Your task to perform on an android device: Go to internet settings Image 0: 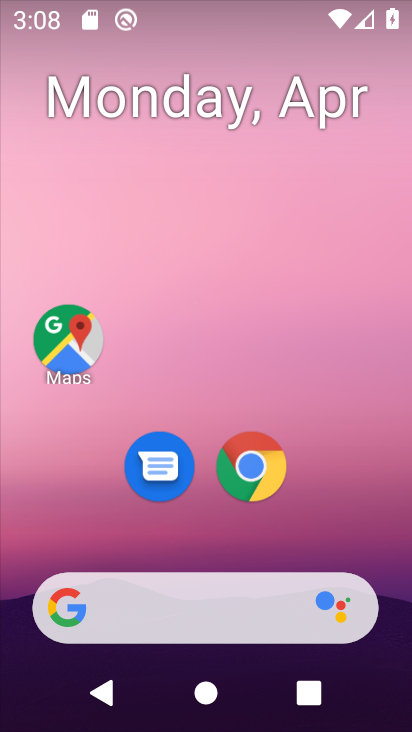
Step 0: drag from (343, 525) to (325, 80)
Your task to perform on an android device: Go to internet settings Image 1: 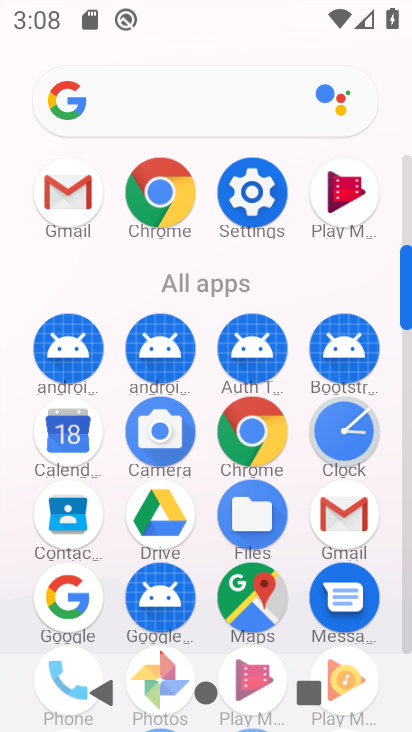
Step 1: click (272, 201)
Your task to perform on an android device: Go to internet settings Image 2: 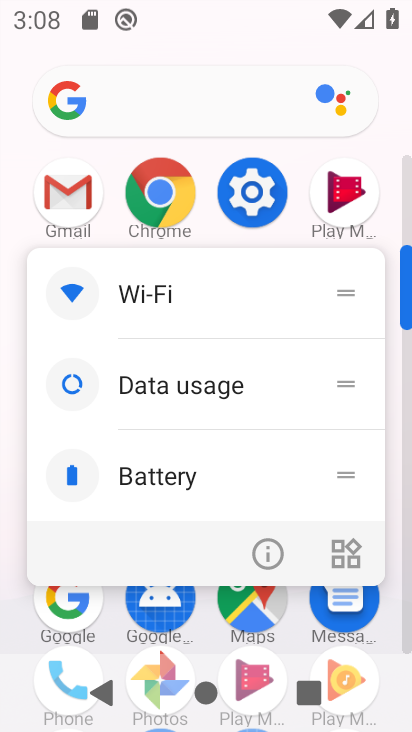
Step 2: click (257, 204)
Your task to perform on an android device: Go to internet settings Image 3: 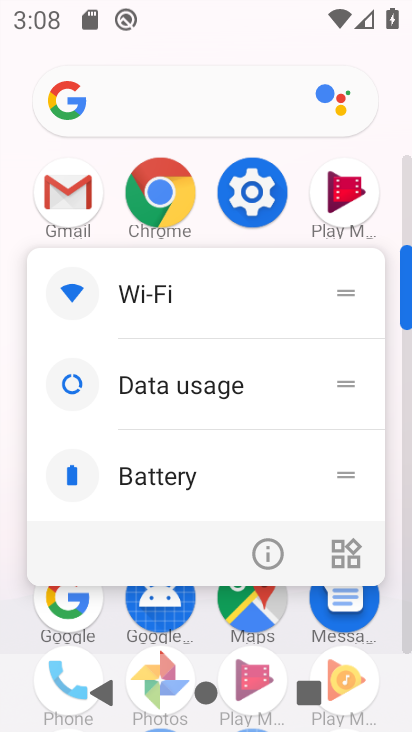
Step 3: click (257, 204)
Your task to perform on an android device: Go to internet settings Image 4: 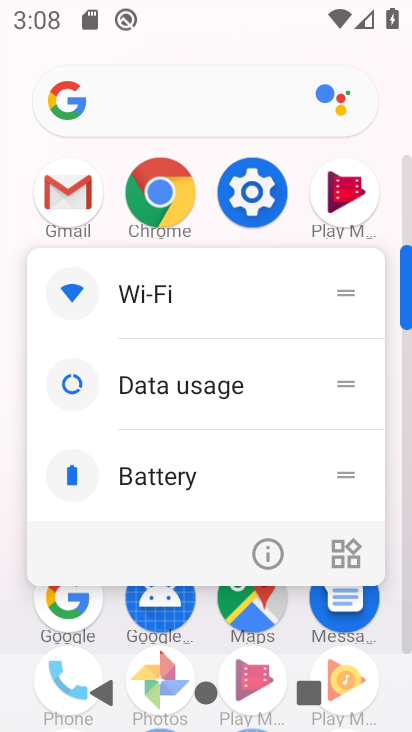
Step 4: click (250, 218)
Your task to perform on an android device: Go to internet settings Image 5: 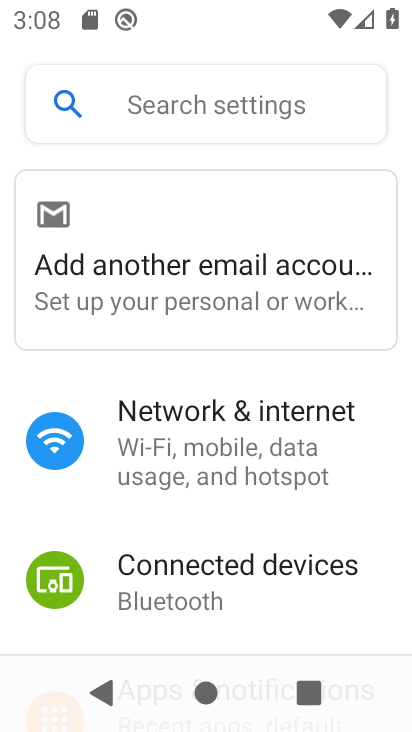
Step 5: drag from (322, 611) to (339, 502)
Your task to perform on an android device: Go to internet settings Image 6: 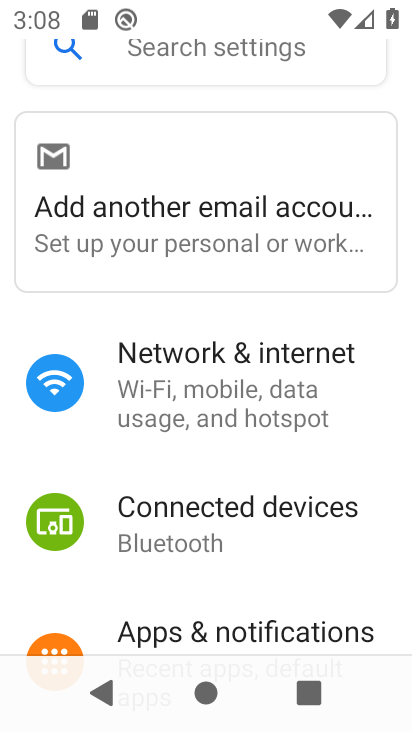
Step 6: click (305, 383)
Your task to perform on an android device: Go to internet settings Image 7: 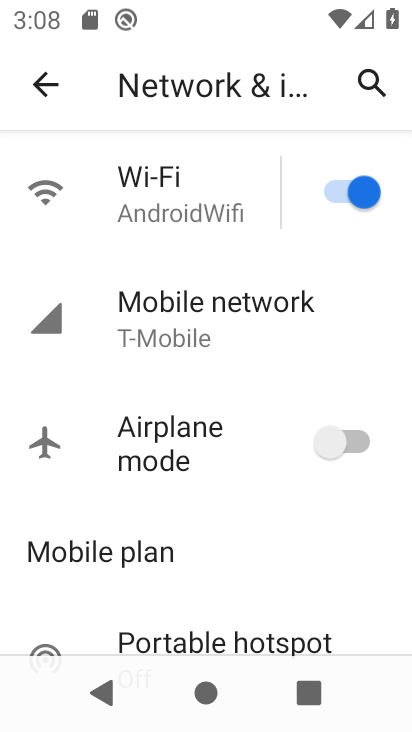
Step 7: task complete